Your task to perform on an android device: uninstall "TextNow: Call + Text Unlimited" Image 0: 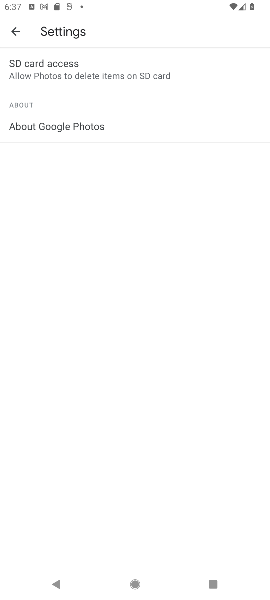
Step 0: press home button
Your task to perform on an android device: uninstall "TextNow: Call + Text Unlimited" Image 1: 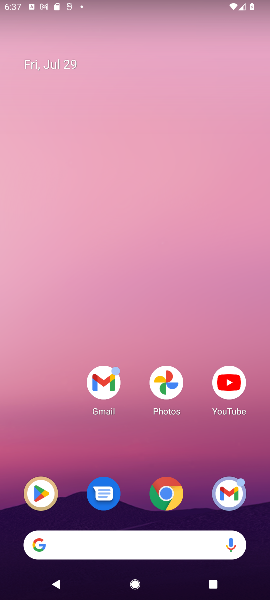
Step 1: click (32, 497)
Your task to perform on an android device: uninstall "TextNow: Call + Text Unlimited" Image 2: 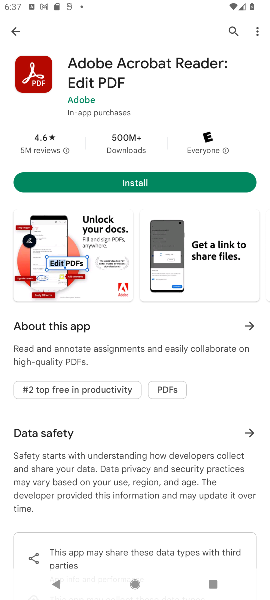
Step 2: click (229, 26)
Your task to perform on an android device: uninstall "TextNow: Call + Text Unlimited" Image 3: 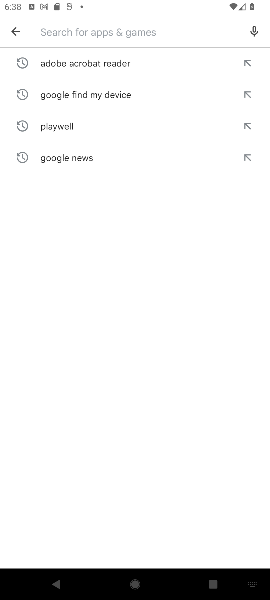
Step 3: type "TextNow: Call + Text Unlimited"
Your task to perform on an android device: uninstall "TextNow: Call + Text Unlimited" Image 4: 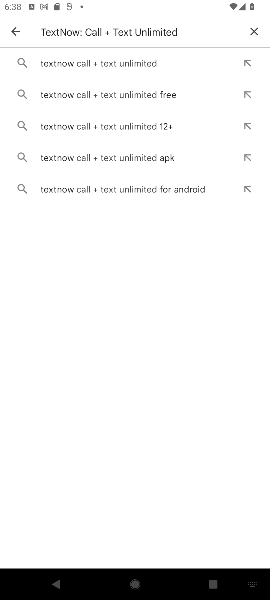
Step 4: click (103, 63)
Your task to perform on an android device: uninstall "TextNow: Call + Text Unlimited" Image 5: 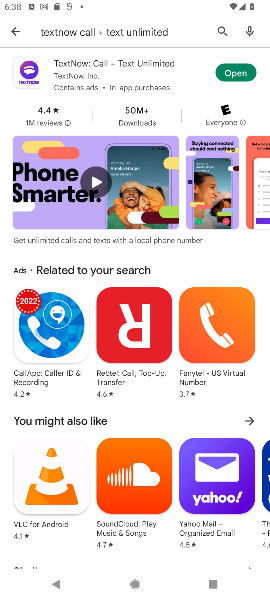
Step 5: click (122, 66)
Your task to perform on an android device: uninstall "TextNow: Call + Text Unlimited" Image 6: 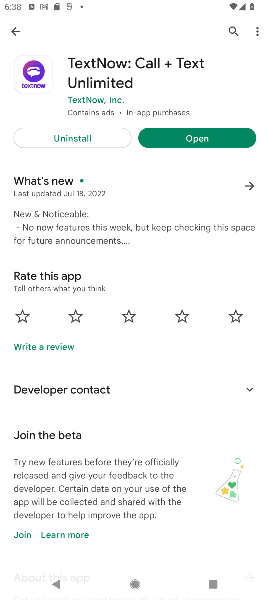
Step 6: click (53, 135)
Your task to perform on an android device: uninstall "TextNow: Call + Text Unlimited" Image 7: 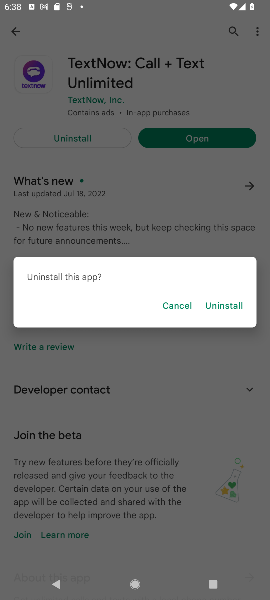
Step 7: click (224, 302)
Your task to perform on an android device: uninstall "TextNow: Call + Text Unlimited" Image 8: 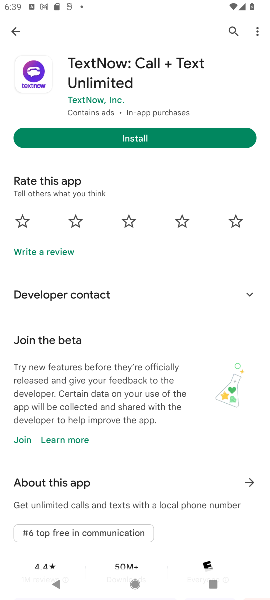
Step 8: task complete